Your task to perform on an android device: check the backup settings in the google photos Image 0: 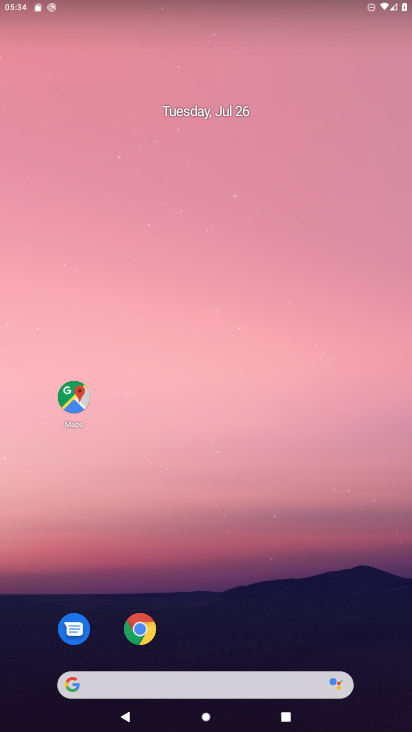
Step 0: drag from (162, 554) to (157, 10)
Your task to perform on an android device: check the backup settings in the google photos Image 1: 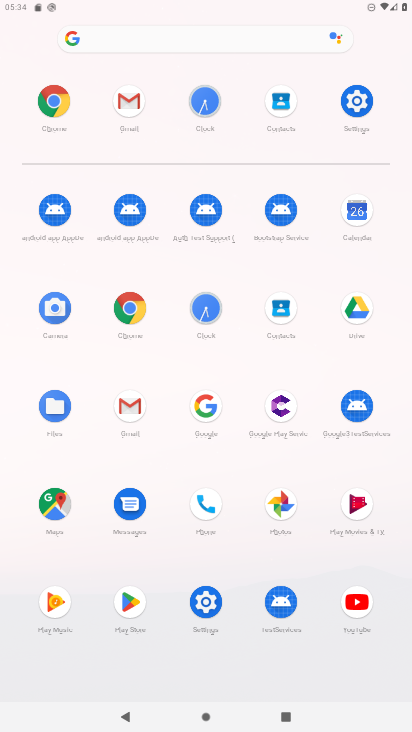
Step 1: click (279, 514)
Your task to perform on an android device: check the backup settings in the google photos Image 2: 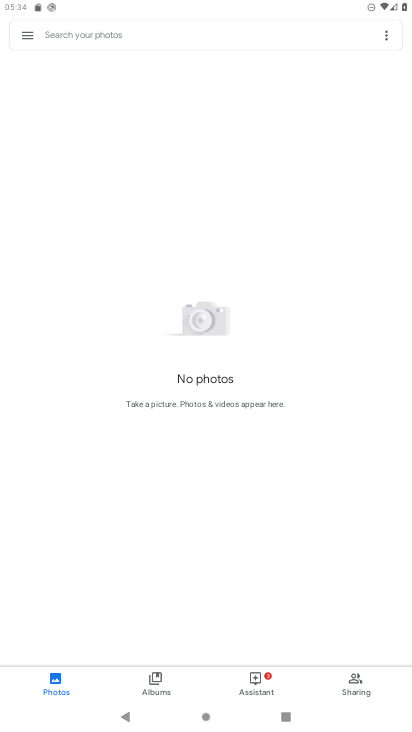
Step 2: click (28, 36)
Your task to perform on an android device: check the backup settings in the google photos Image 3: 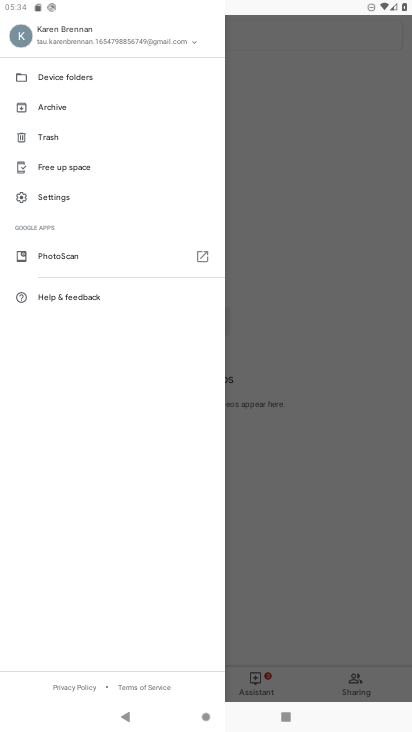
Step 3: click (49, 193)
Your task to perform on an android device: check the backup settings in the google photos Image 4: 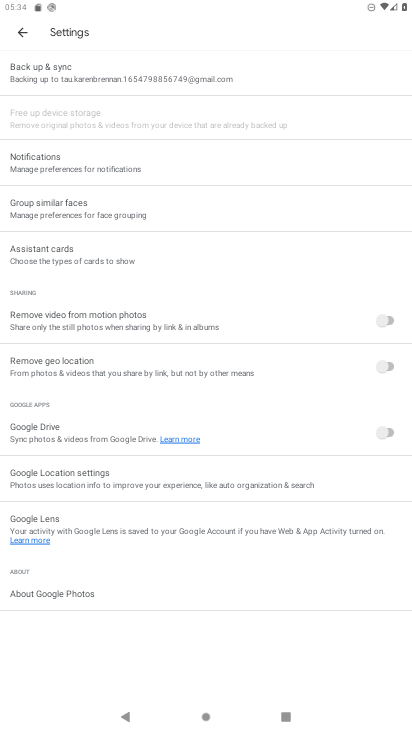
Step 4: click (72, 79)
Your task to perform on an android device: check the backup settings in the google photos Image 5: 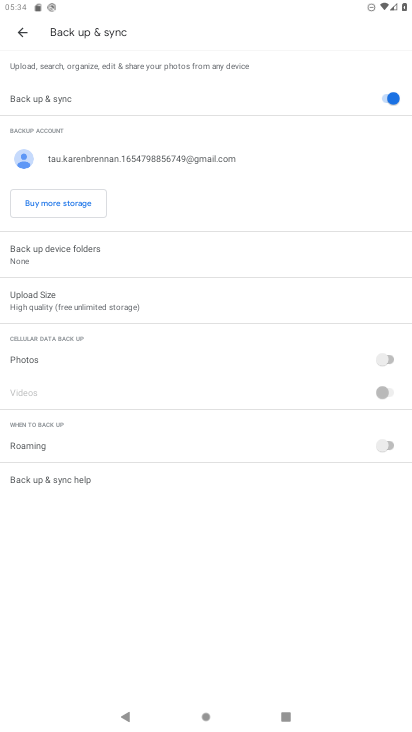
Step 5: task complete